Your task to perform on an android device: Play the last video I watched on Youtube Image 0: 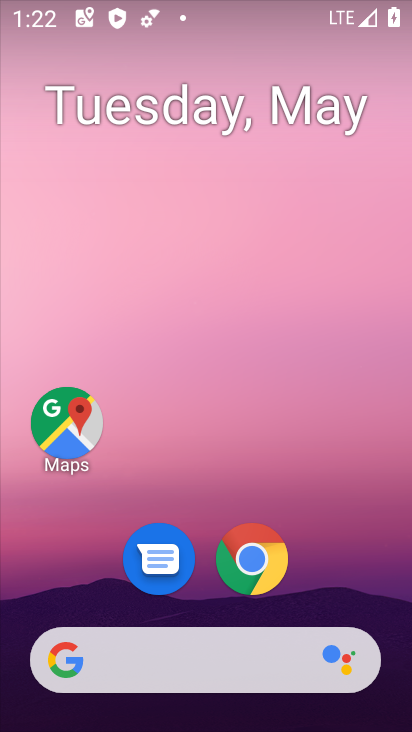
Step 0: drag from (332, 558) to (251, 115)
Your task to perform on an android device: Play the last video I watched on Youtube Image 1: 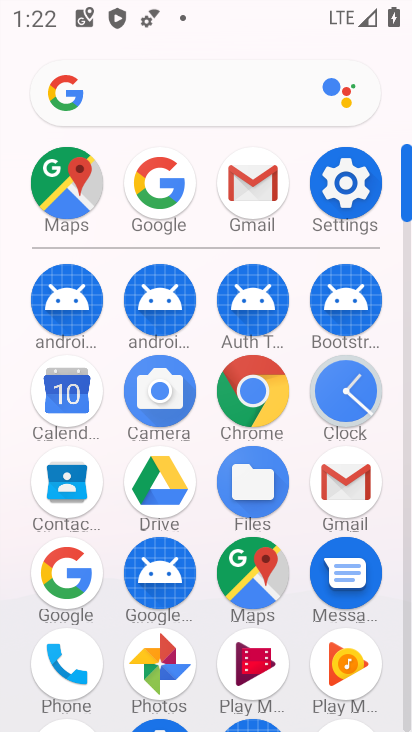
Step 1: drag from (310, 618) to (307, 248)
Your task to perform on an android device: Play the last video I watched on Youtube Image 2: 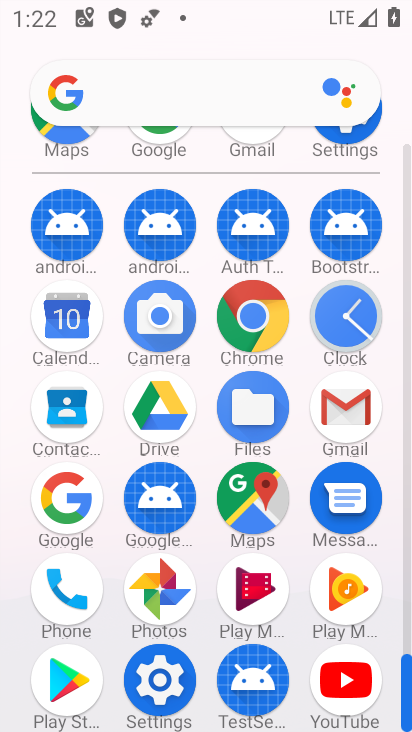
Step 2: click (343, 694)
Your task to perform on an android device: Play the last video I watched on Youtube Image 3: 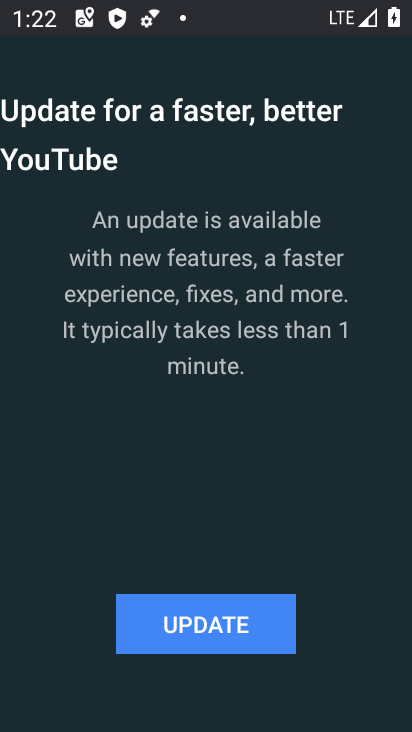
Step 3: click (176, 627)
Your task to perform on an android device: Play the last video I watched on Youtube Image 4: 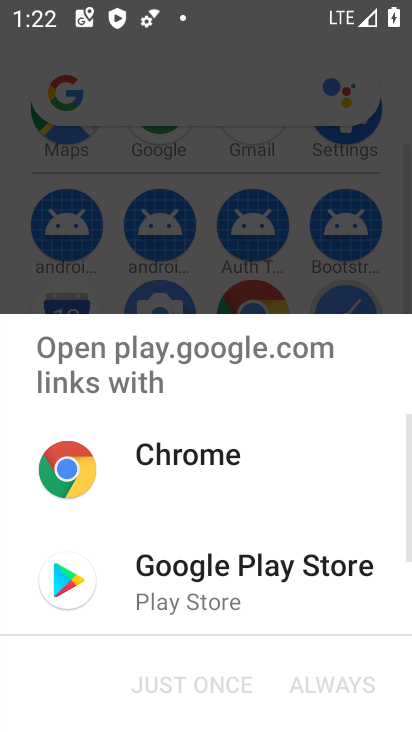
Step 4: click (158, 575)
Your task to perform on an android device: Play the last video I watched on Youtube Image 5: 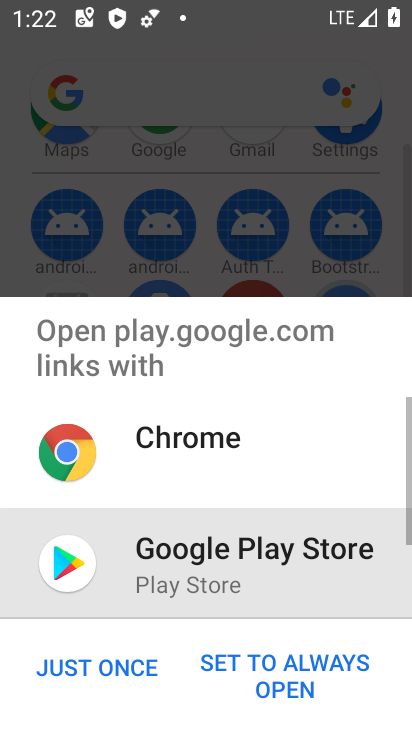
Step 5: click (180, 679)
Your task to perform on an android device: Play the last video I watched on Youtube Image 6: 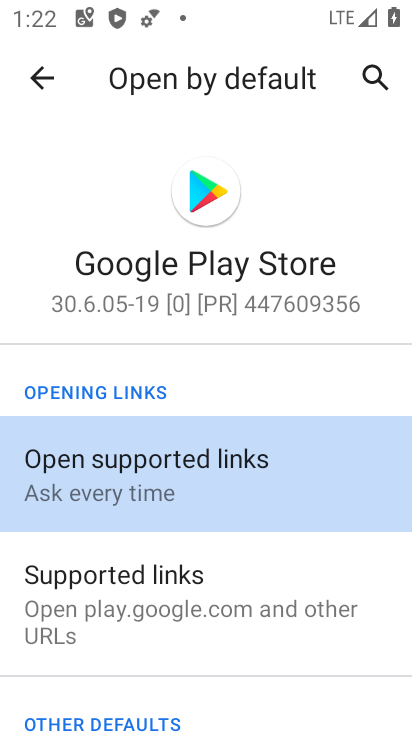
Step 6: click (45, 75)
Your task to perform on an android device: Play the last video I watched on Youtube Image 7: 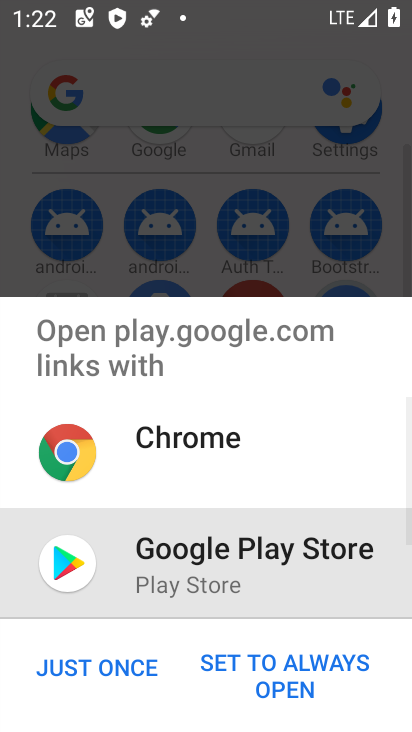
Step 7: click (62, 676)
Your task to perform on an android device: Play the last video I watched on Youtube Image 8: 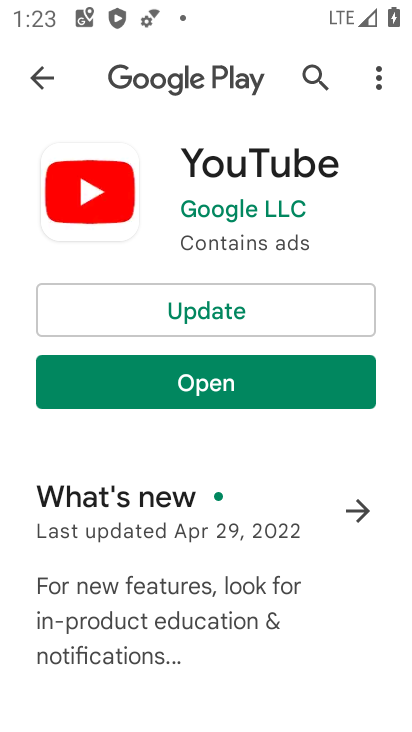
Step 8: click (247, 306)
Your task to perform on an android device: Play the last video I watched on Youtube Image 9: 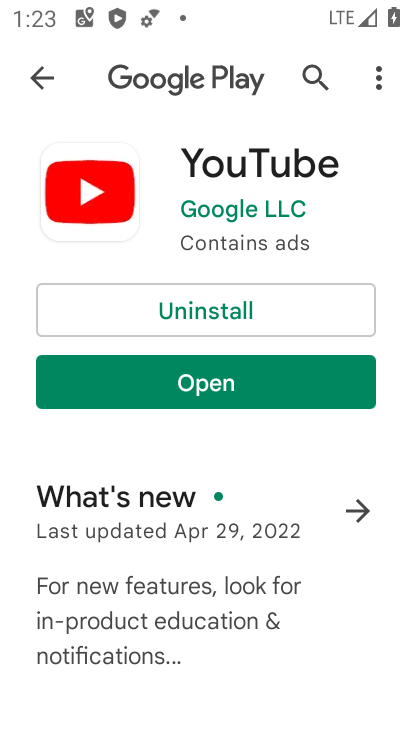
Step 9: click (207, 376)
Your task to perform on an android device: Play the last video I watched on Youtube Image 10: 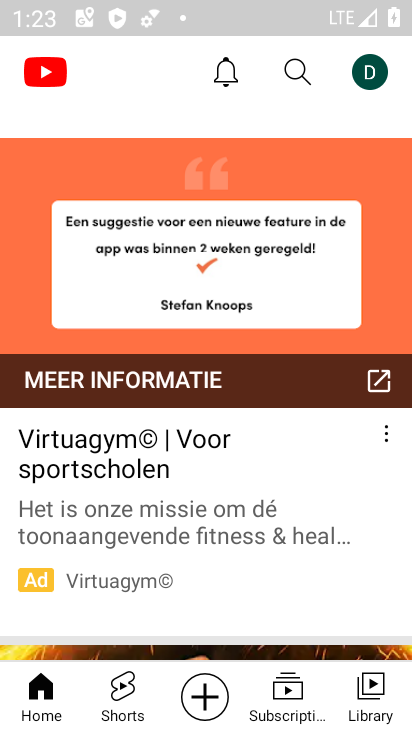
Step 10: click (378, 693)
Your task to perform on an android device: Play the last video I watched on Youtube Image 11: 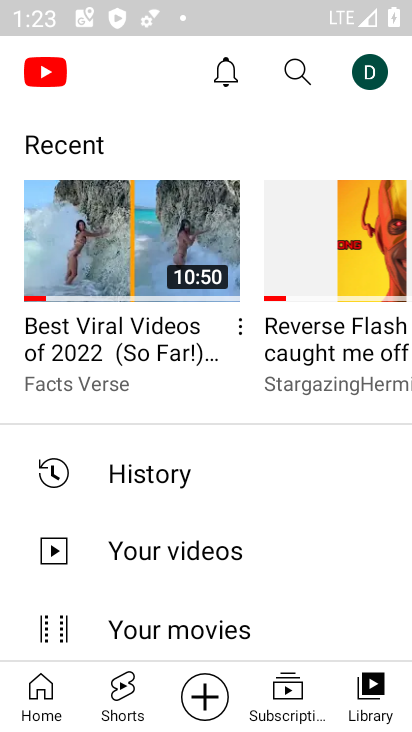
Step 11: click (120, 252)
Your task to perform on an android device: Play the last video I watched on Youtube Image 12: 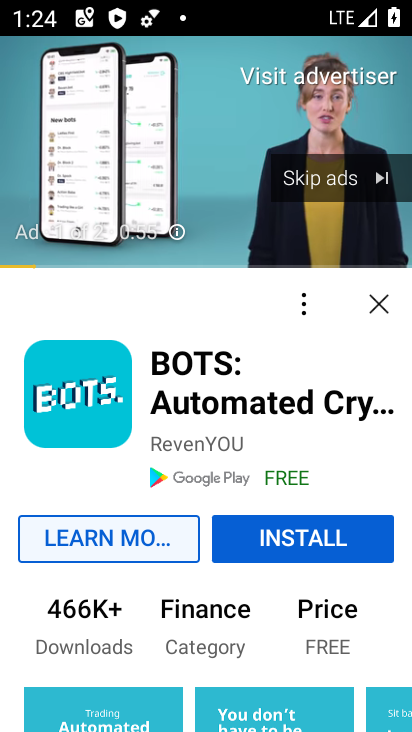
Step 12: click (372, 176)
Your task to perform on an android device: Play the last video I watched on Youtube Image 13: 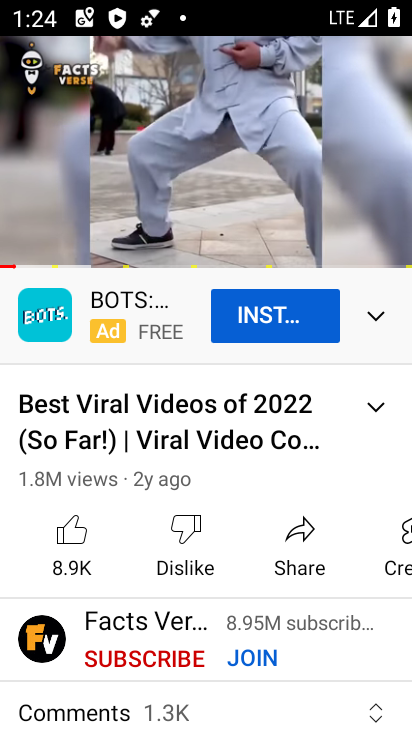
Step 13: task complete